Your task to perform on an android device: toggle pop-ups in chrome Image 0: 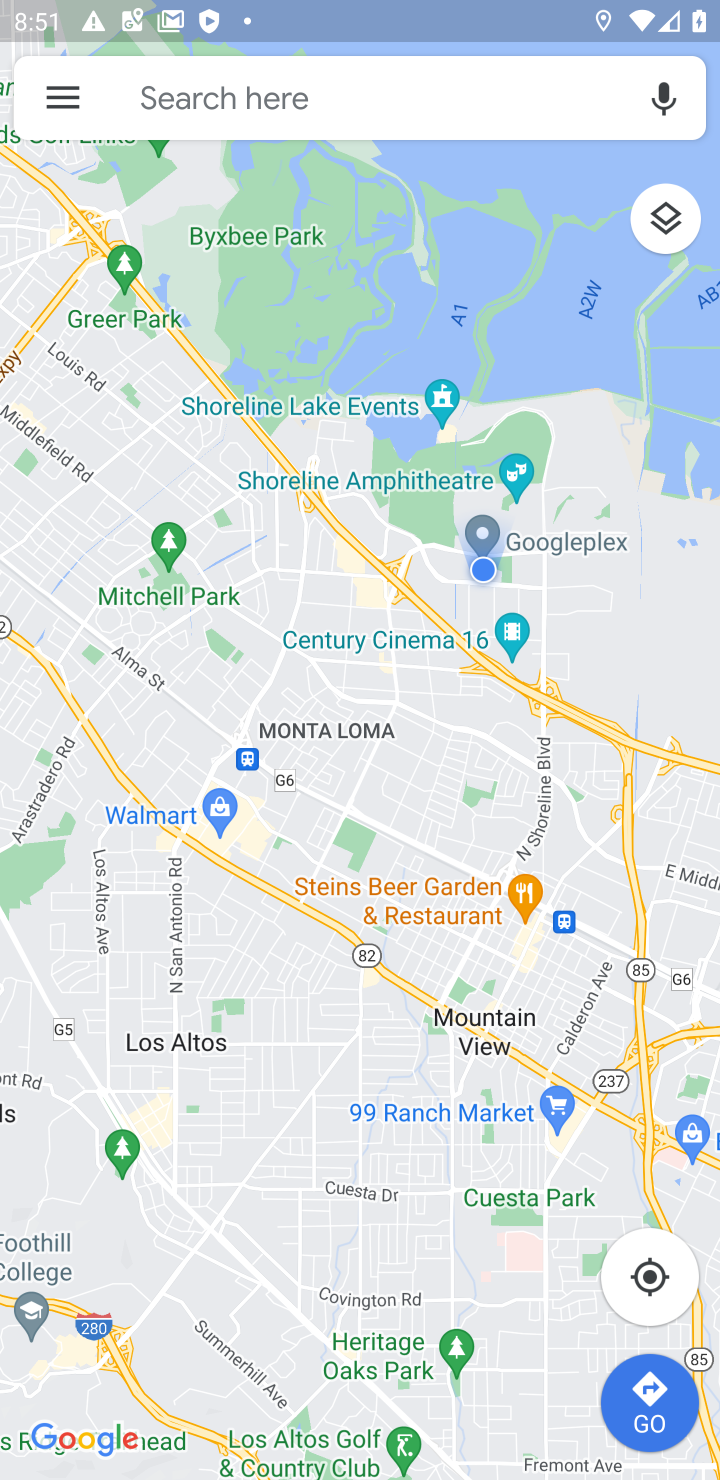
Step 0: press home button
Your task to perform on an android device: toggle pop-ups in chrome Image 1: 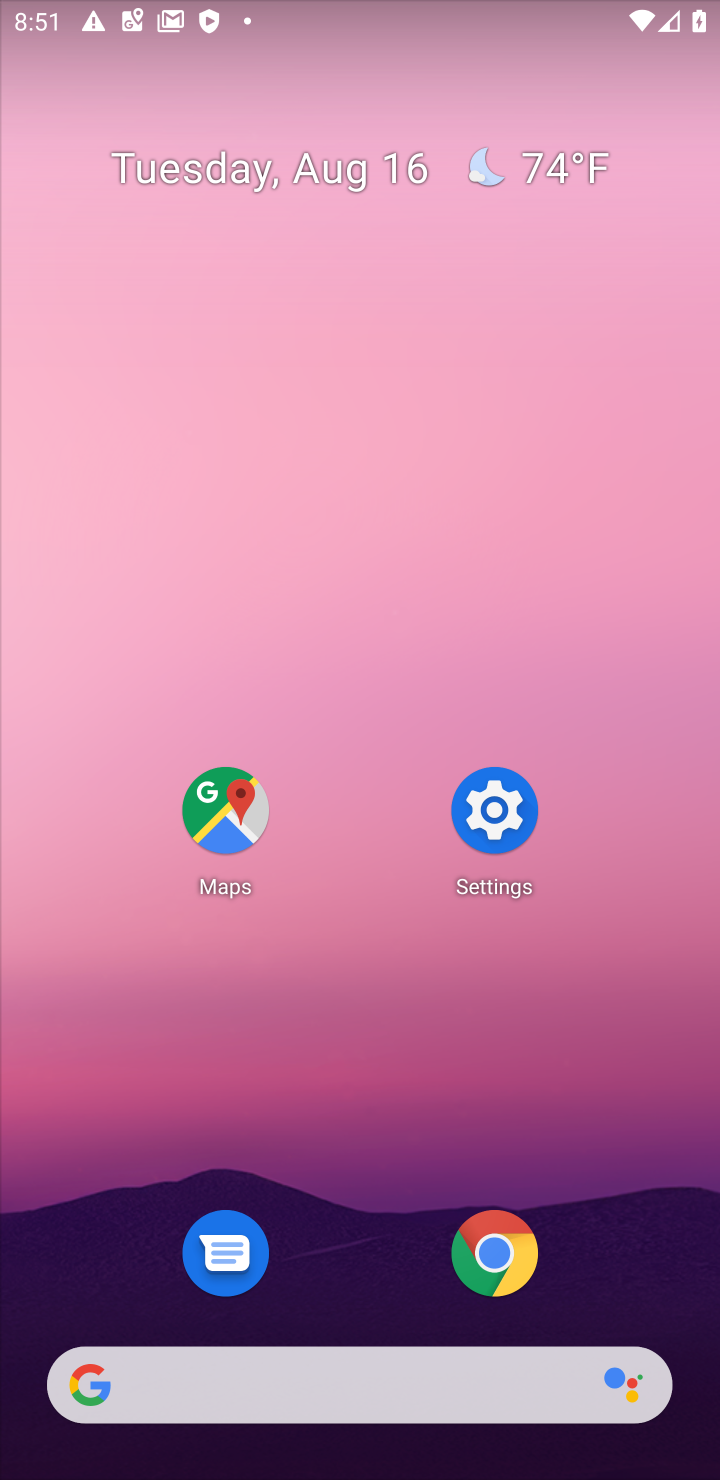
Step 1: click (496, 1264)
Your task to perform on an android device: toggle pop-ups in chrome Image 2: 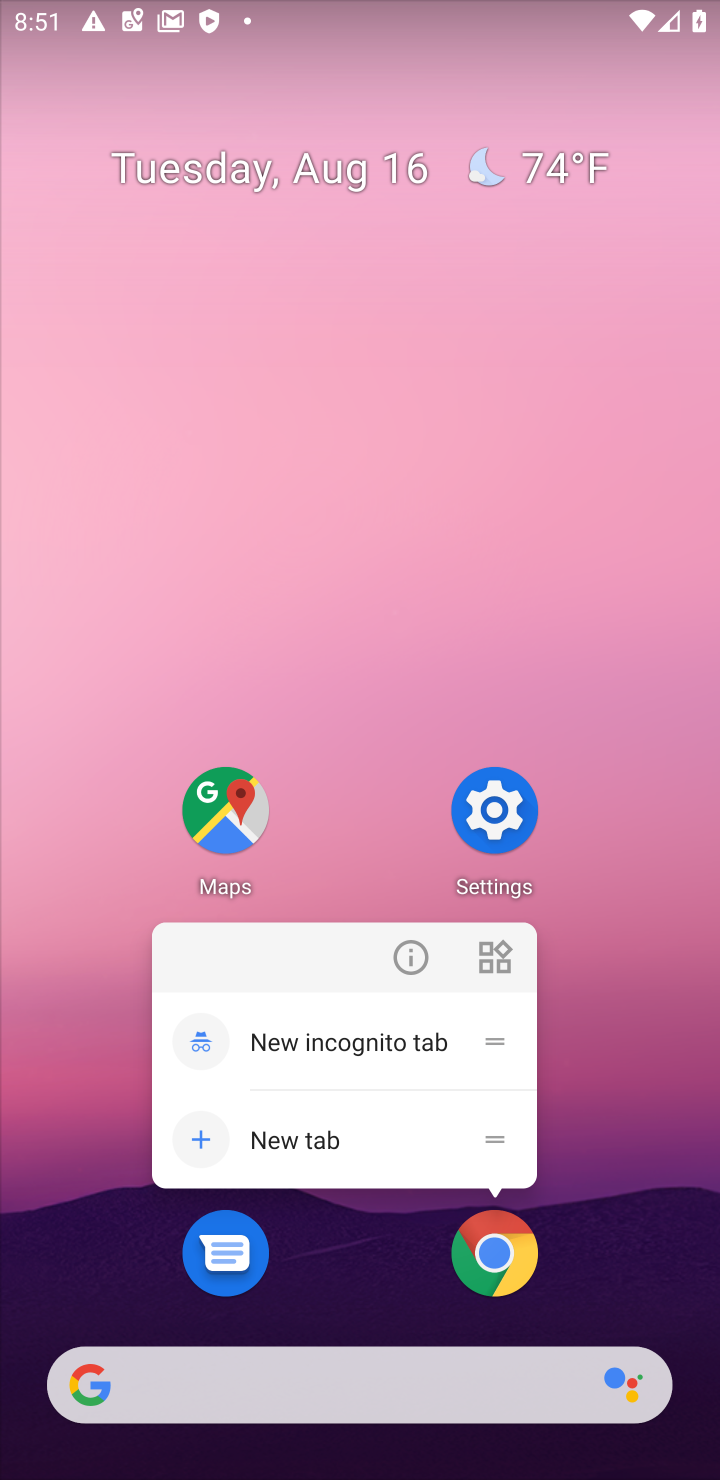
Step 2: click (496, 1253)
Your task to perform on an android device: toggle pop-ups in chrome Image 3: 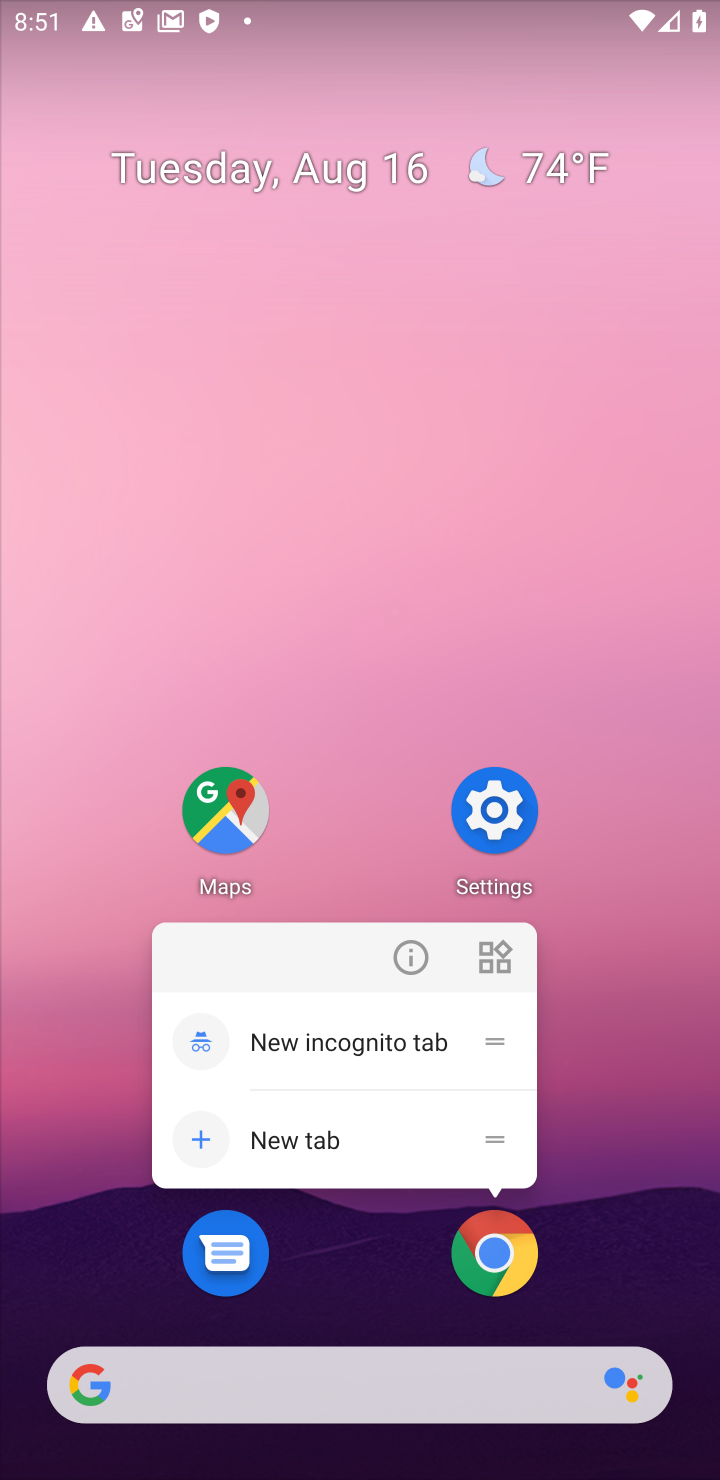
Step 3: click (496, 1253)
Your task to perform on an android device: toggle pop-ups in chrome Image 4: 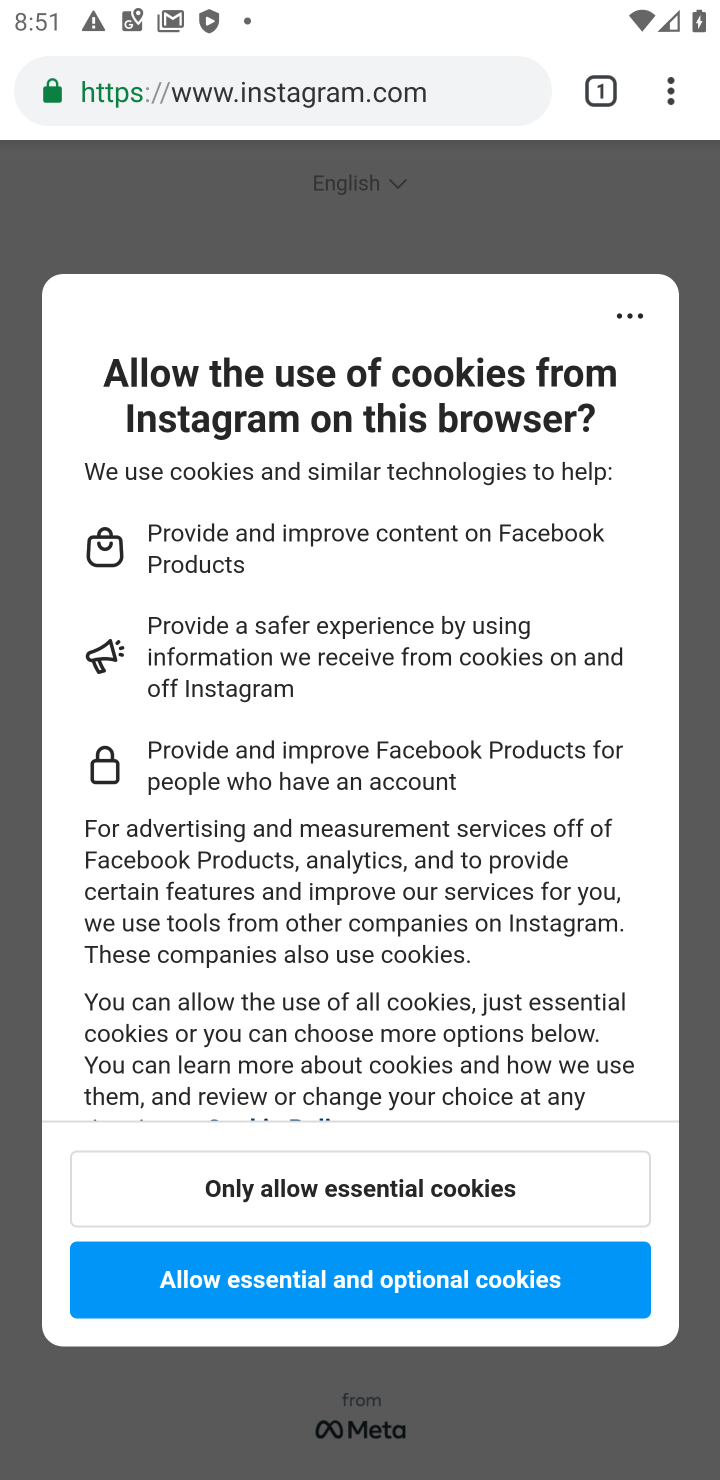
Step 4: drag from (665, 85) to (484, 1086)
Your task to perform on an android device: toggle pop-ups in chrome Image 5: 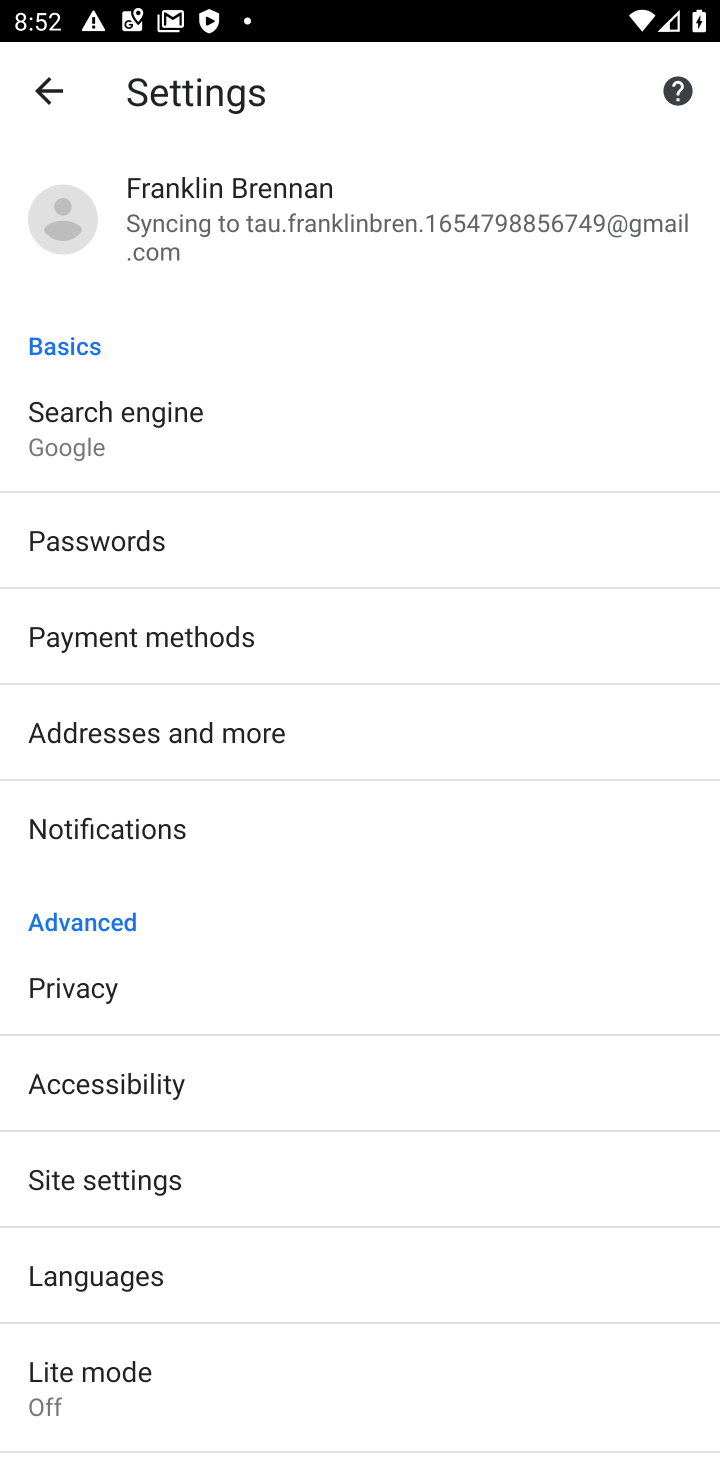
Step 5: click (202, 1179)
Your task to perform on an android device: toggle pop-ups in chrome Image 6: 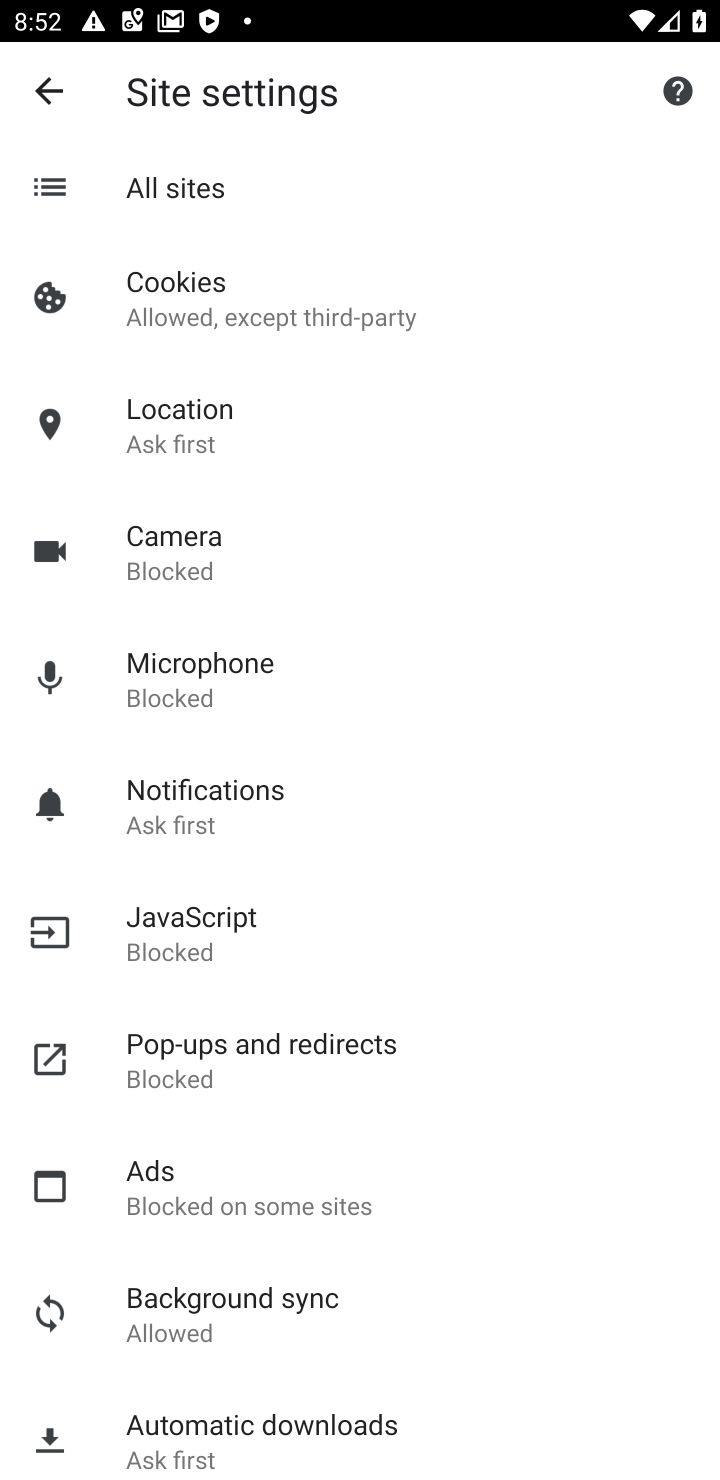
Step 6: click (289, 1047)
Your task to perform on an android device: toggle pop-ups in chrome Image 7: 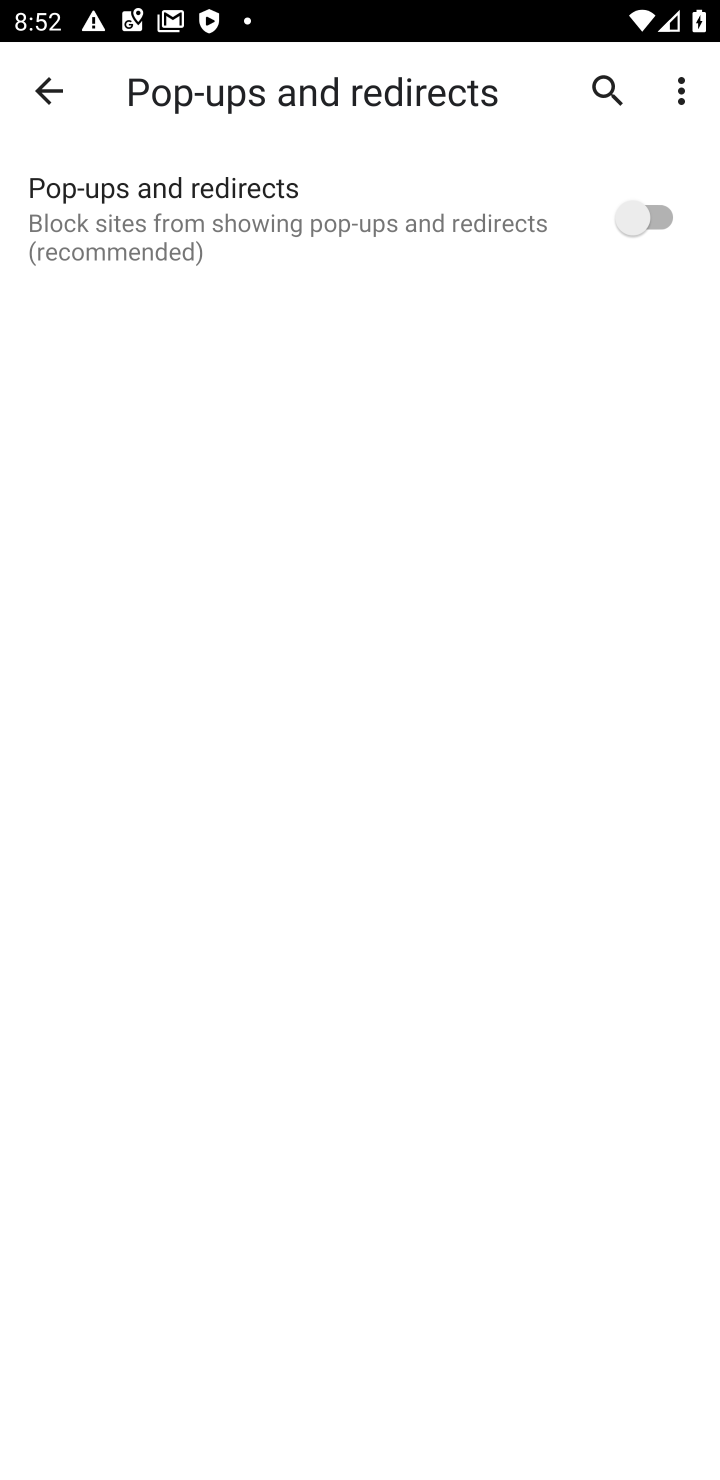
Step 7: click (660, 207)
Your task to perform on an android device: toggle pop-ups in chrome Image 8: 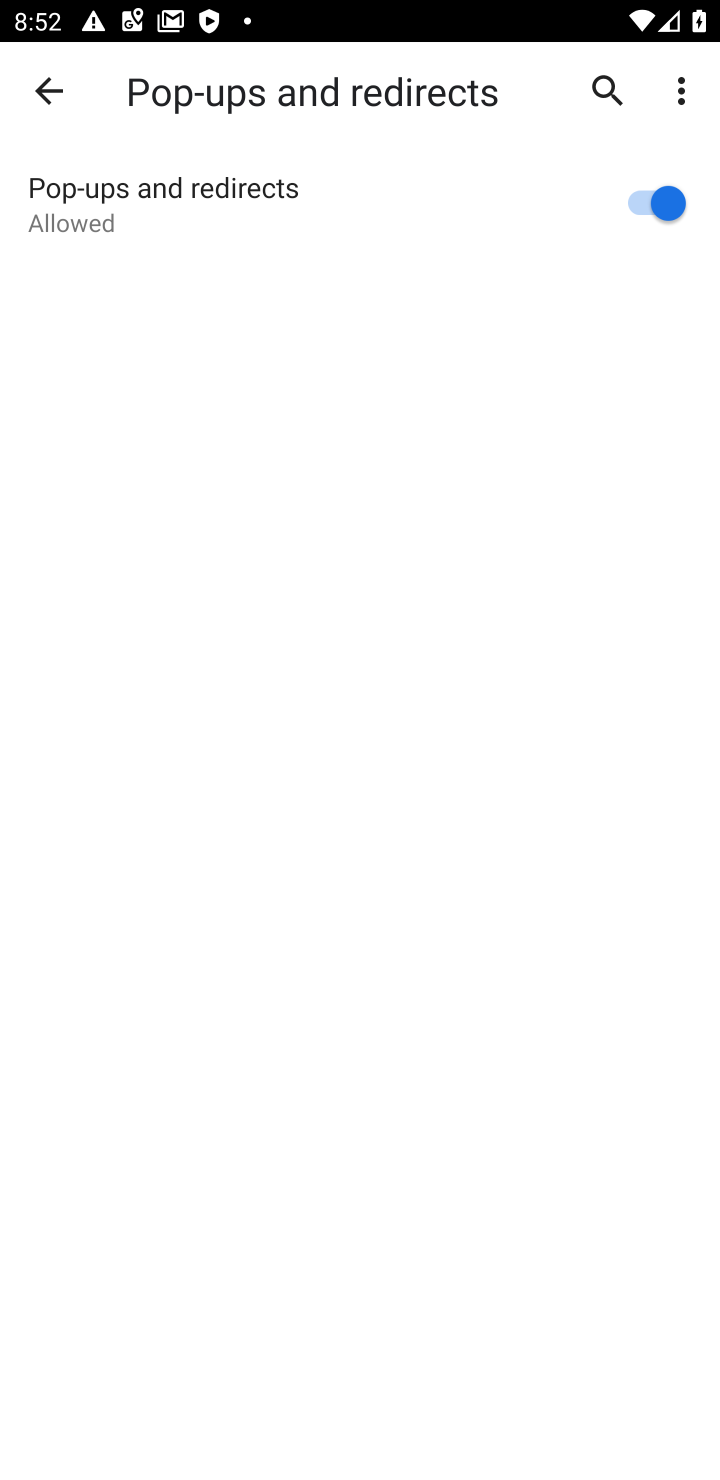
Step 8: task complete